Your task to perform on an android device: Open calendar and show me the fourth week of next month Image 0: 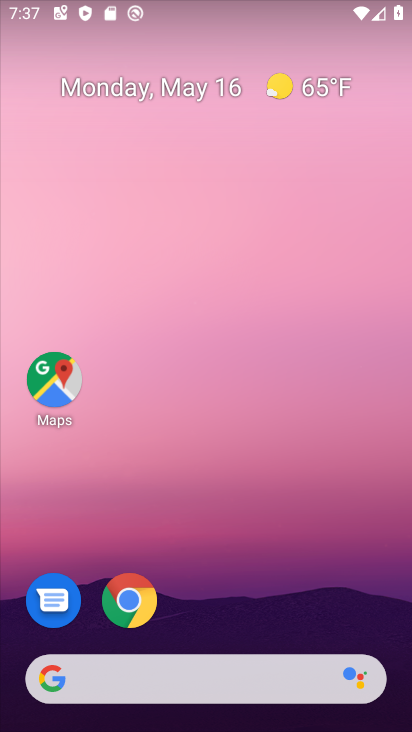
Step 0: click (62, 28)
Your task to perform on an android device: Open calendar and show me the fourth week of next month Image 1: 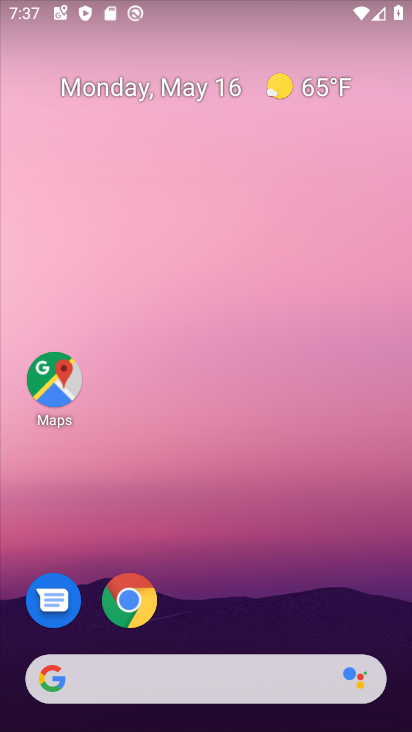
Step 1: drag from (201, 629) to (101, 0)
Your task to perform on an android device: Open calendar and show me the fourth week of next month Image 2: 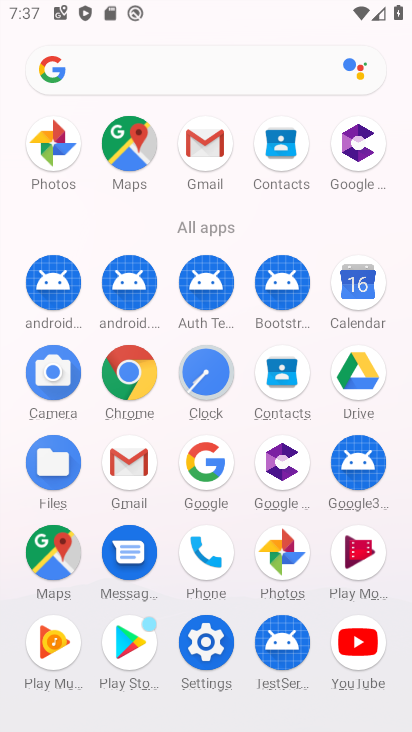
Step 2: click (353, 289)
Your task to perform on an android device: Open calendar and show me the fourth week of next month Image 3: 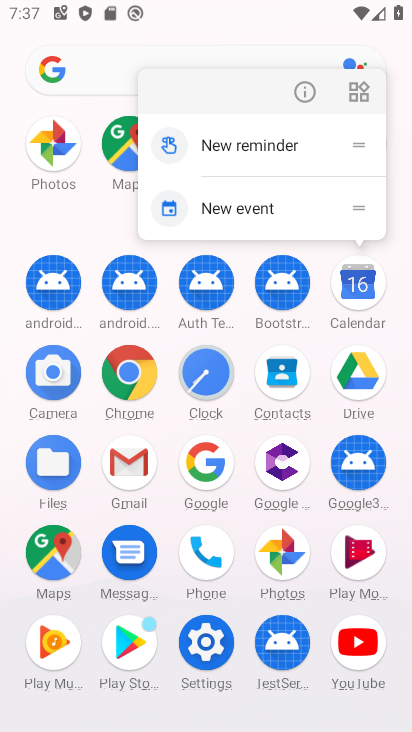
Step 3: click (303, 84)
Your task to perform on an android device: Open calendar and show me the fourth week of next month Image 4: 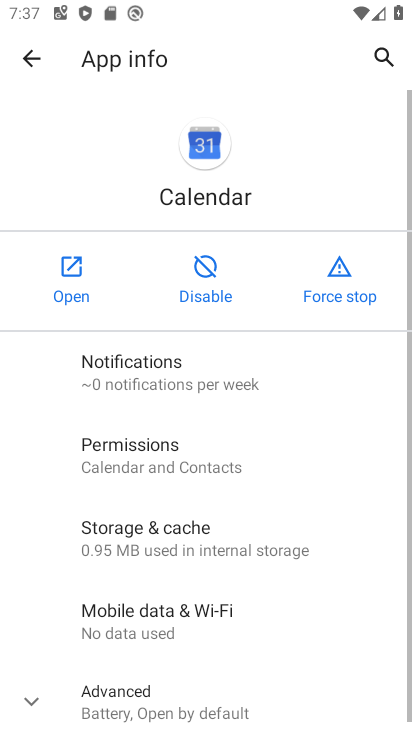
Step 4: click (81, 263)
Your task to perform on an android device: Open calendar and show me the fourth week of next month Image 5: 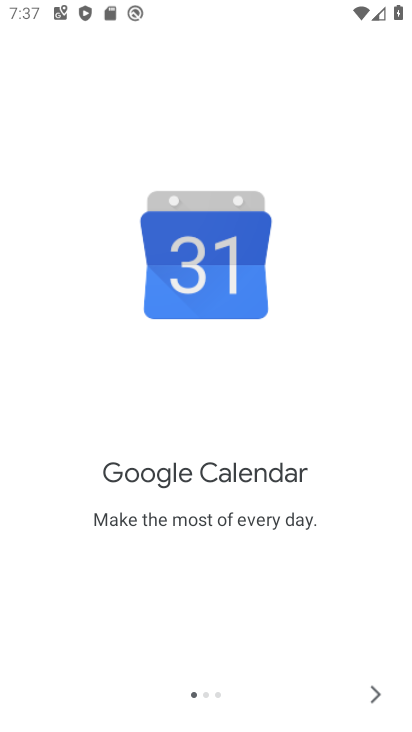
Step 5: click (384, 681)
Your task to perform on an android device: Open calendar and show me the fourth week of next month Image 6: 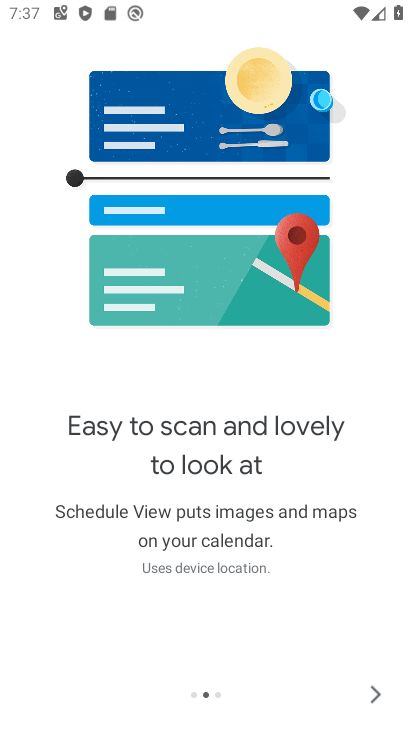
Step 6: click (378, 688)
Your task to perform on an android device: Open calendar and show me the fourth week of next month Image 7: 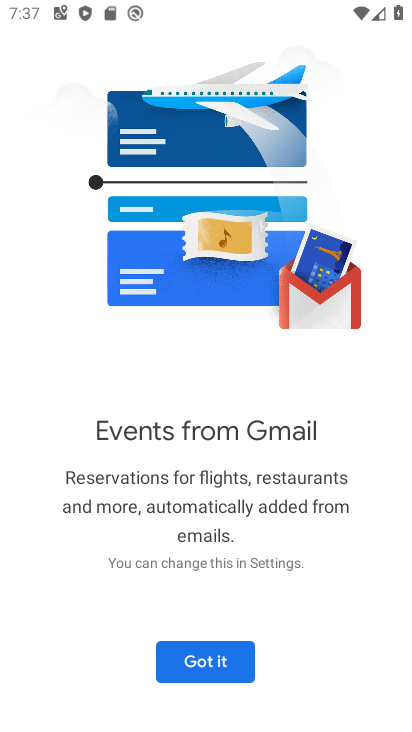
Step 7: click (378, 688)
Your task to perform on an android device: Open calendar and show me the fourth week of next month Image 8: 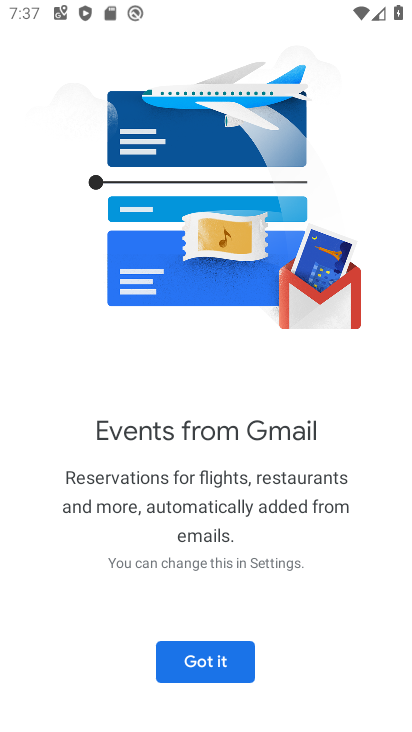
Step 8: click (210, 686)
Your task to perform on an android device: Open calendar and show me the fourth week of next month Image 9: 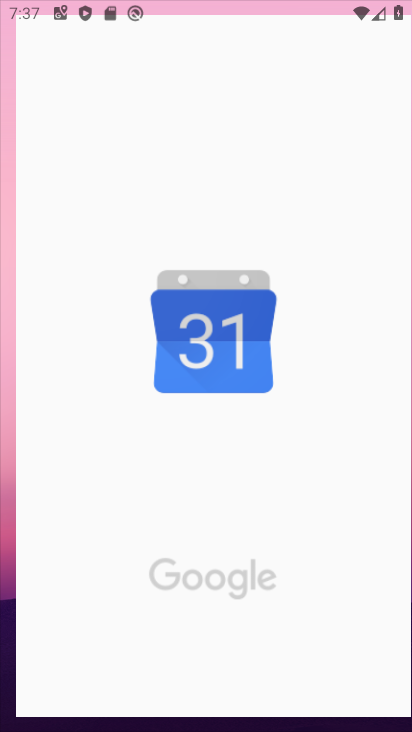
Step 9: click (193, 673)
Your task to perform on an android device: Open calendar and show me the fourth week of next month Image 10: 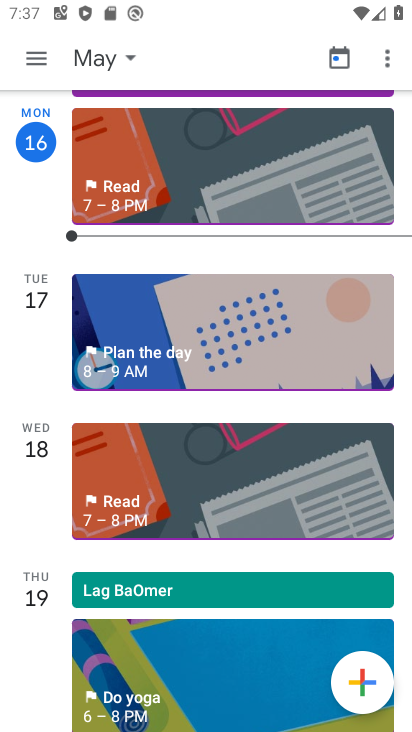
Step 10: click (109, 57)
Your task to perform on an android device: Open calendar and show me the fourth week of next month Image 11: 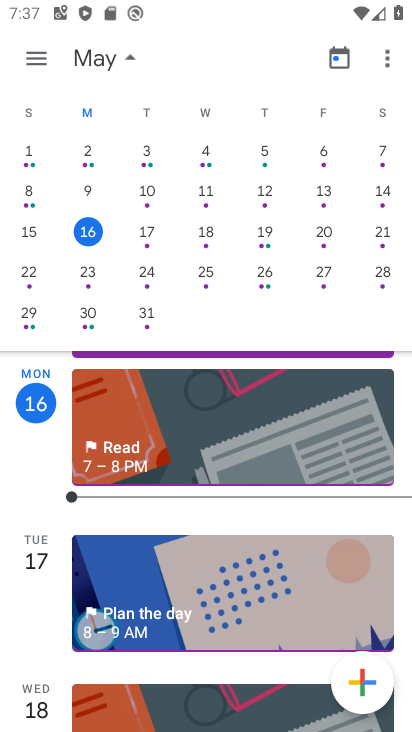
Step 11: drag from (375, 226) to (12, 286)
Your task to perform on an android device: Open calendar and show me the fourth week of next month Image 12: 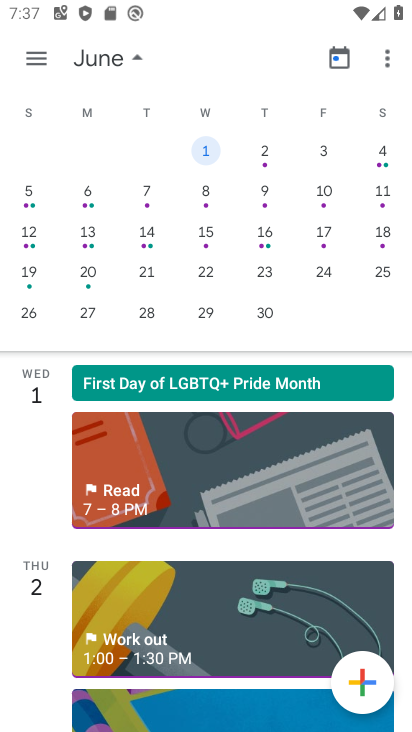
Step 12: drag from (351, 199) to (273, 212)
Your task to perform on an android device: Open calendar and show me the fourth week of next month Image 13: 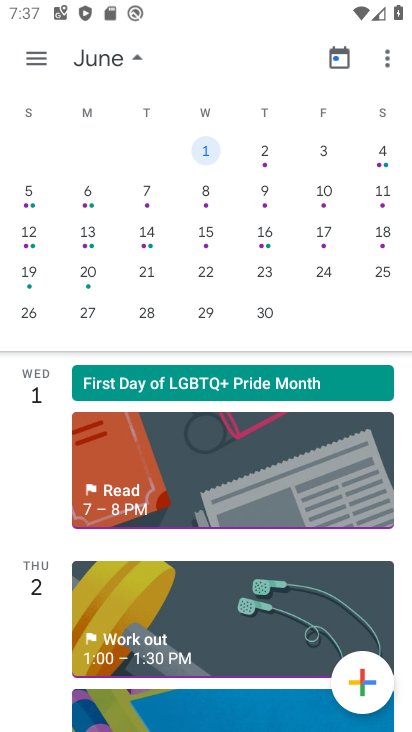
Step 13: click (268, 277)
Your task to perform on an android device: Open calendar and show me the fourth week of next month Image 14: 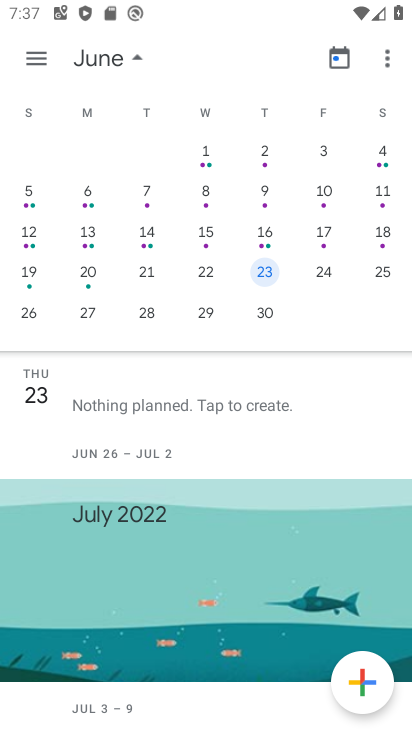
Step 14: task complete